Your task to perform on an android device: Open calendar and show me the first week of next month Image 0: 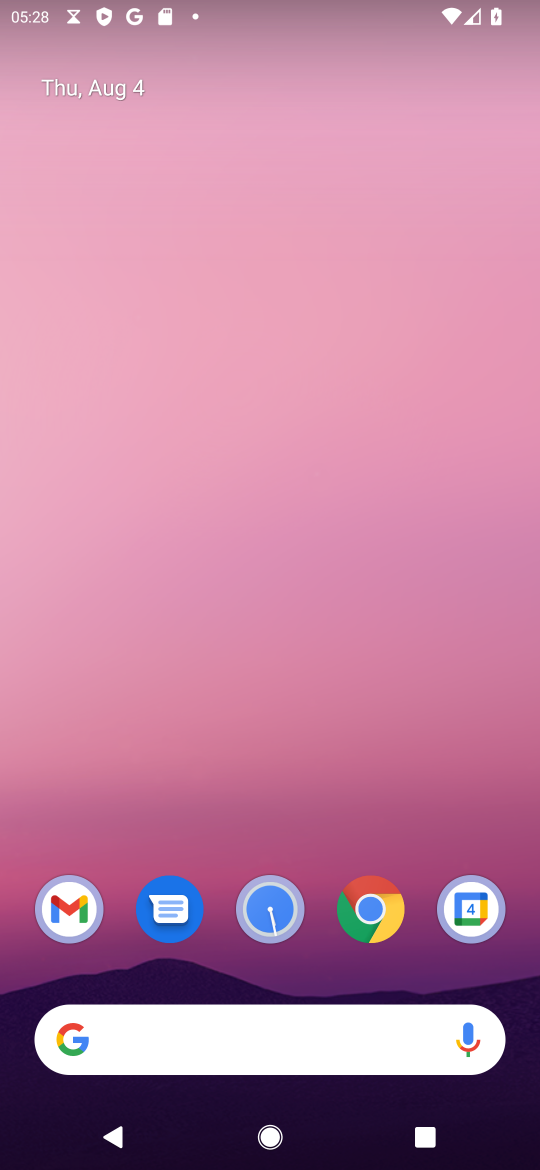
Step 0: drag from (196, 1002) to (352, 184)
Your task to perform on an android device: Open calendar and show me the first week of next month Image 1: 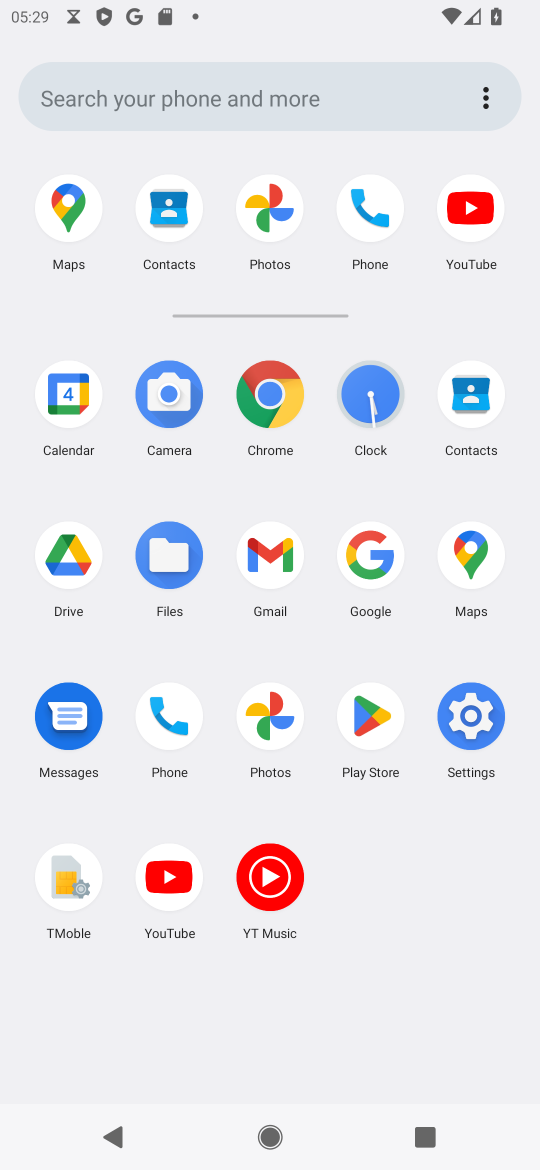
Step 1: click (64, 386)
Your task to perform on an android device: Open calendar and show me the first week of next month Image 2: 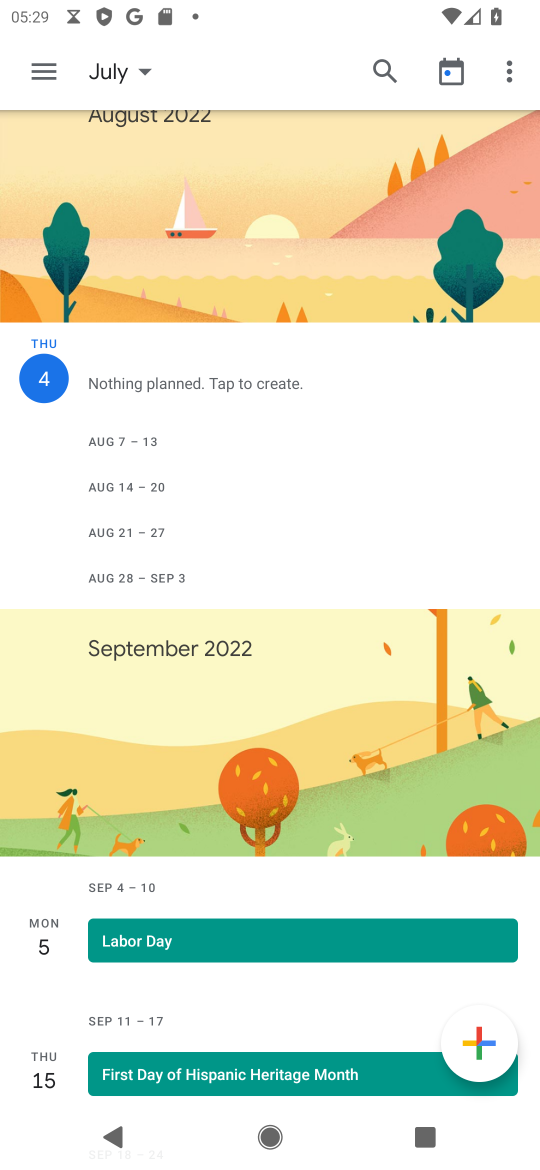
Step 2: click (109, 67)
Your task to perform on an android device: Open calendar and show me the first week of next month Image 3: 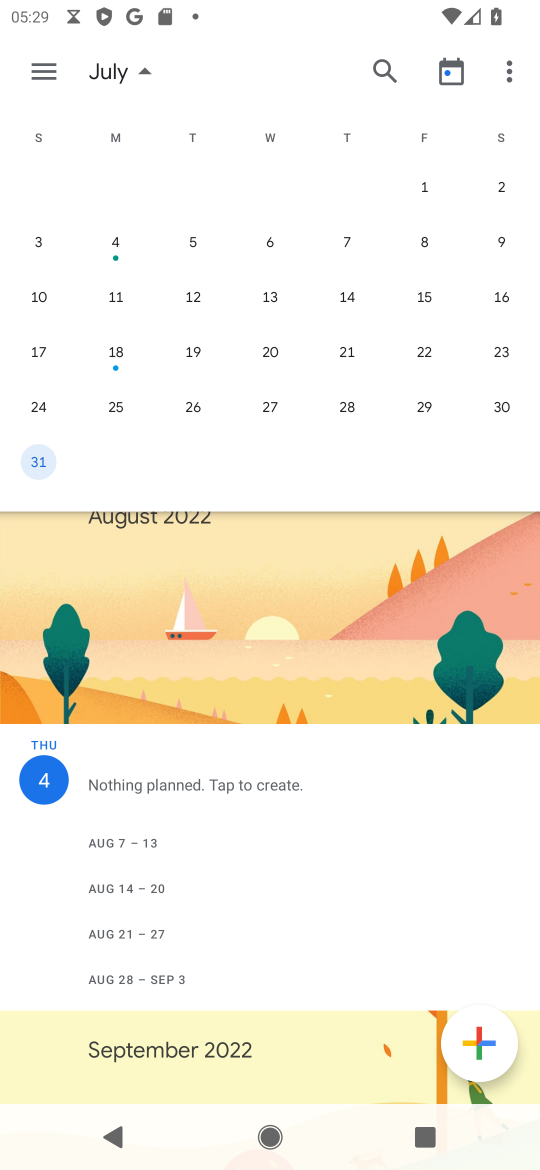
Step 3: drag from (445, 325) to (52, 240)
Your task to perform on an android device: Open calendar and show me the first week of next month Image 4: 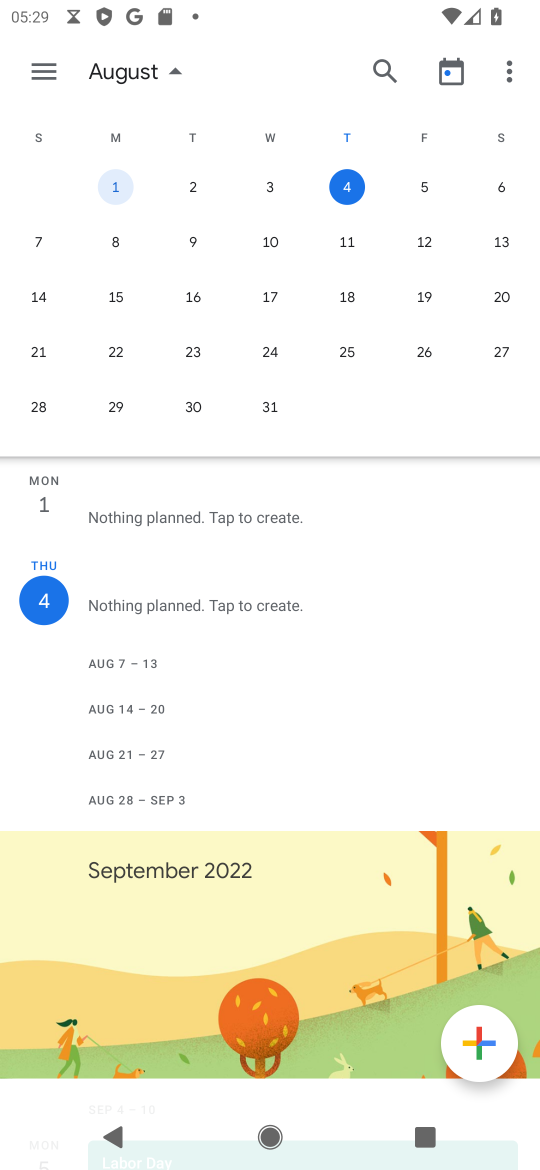
Step 4: drag from (462, 336) to (45, 387)
Your task to perform on an android device: Open calendar and show me the first week of next month Image 5: 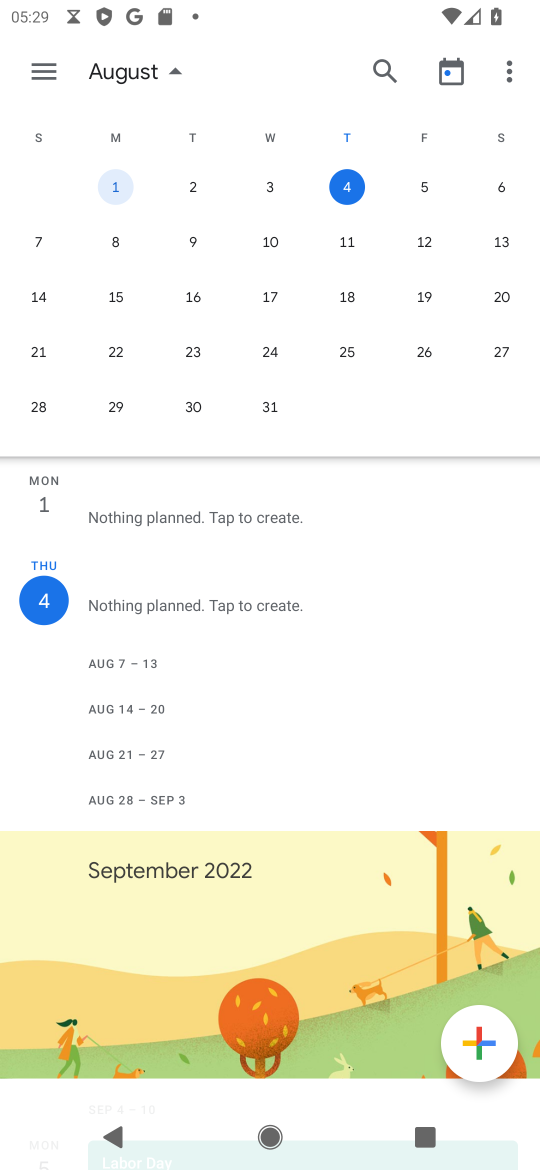
Step 5: drag from (457, 283) to (22, 271)
Your task to perform on an android device: Open calendar and show me the first week of next month Image 6: 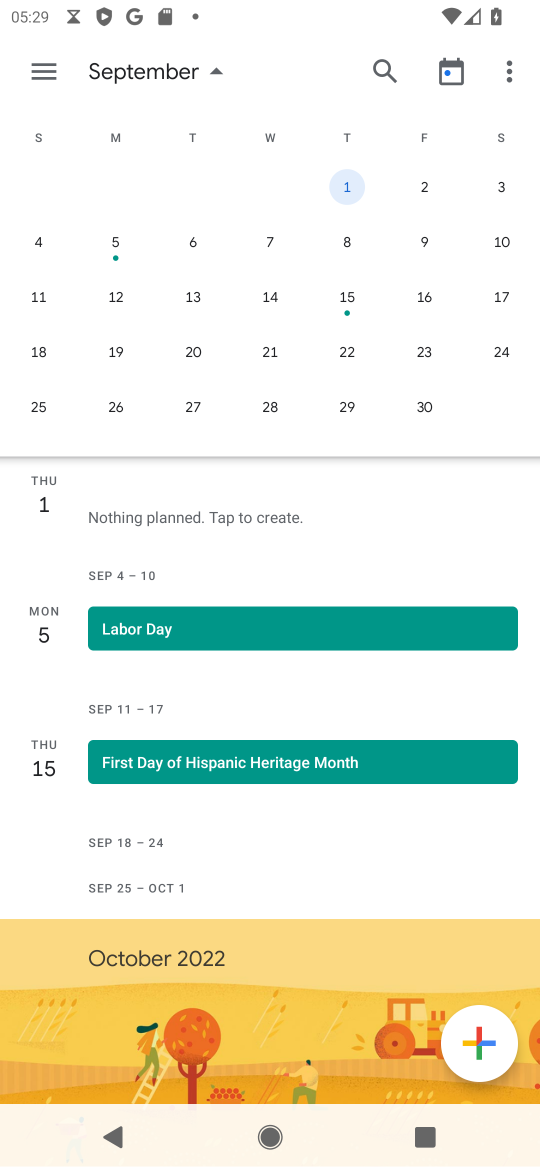
Step 6: click (350, 177)
Your task to perform on an android device: Open calendar and show me the first week of next month Image 7: 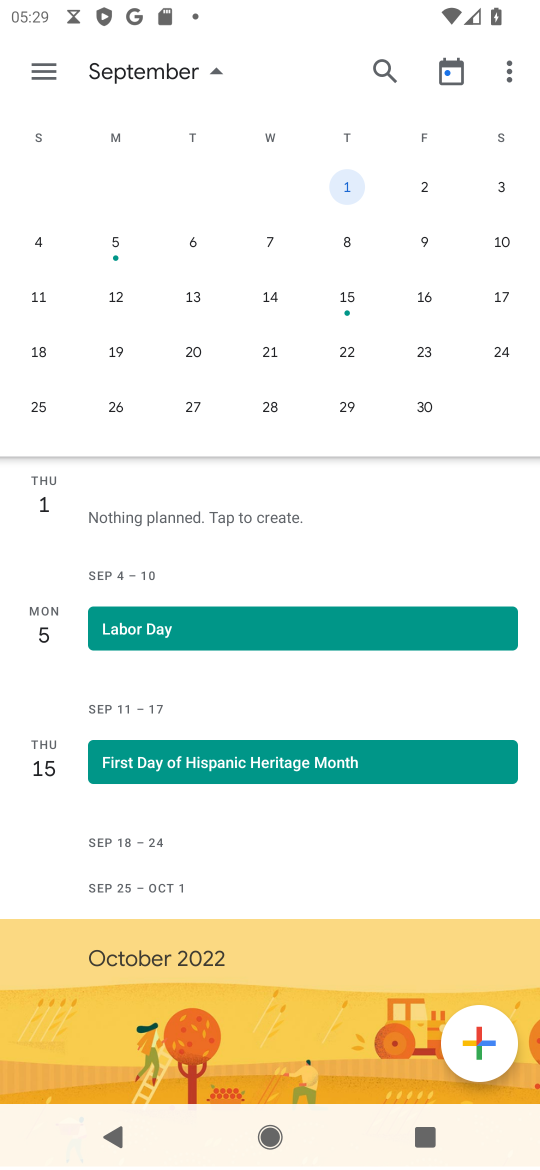
Step 7: click (48, 66)
Your task to perform on an android device: Open calendar and show me the first week of next month Image 8: 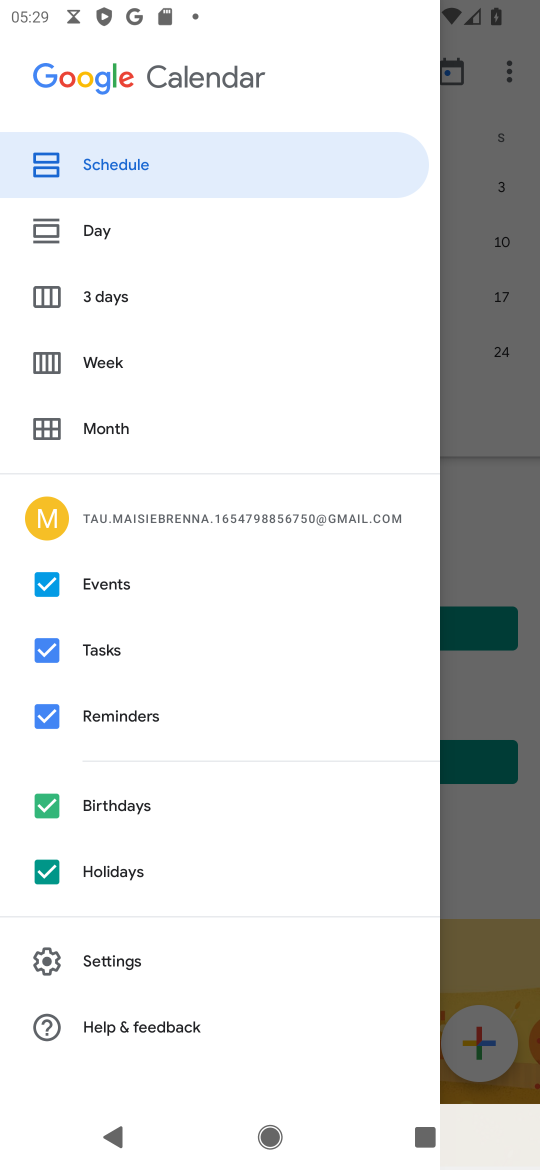
Step 8: click (107, 357)
Your task to perform on an android device: Open calendar and show me the first week of next month Image 9: 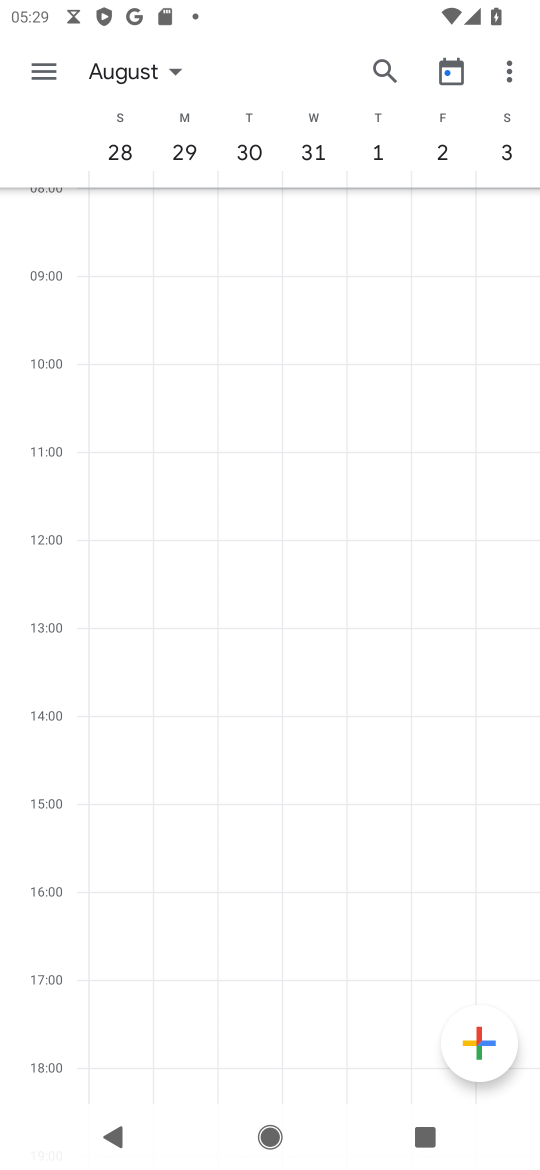
Step 9: task complete